Your task to perform on an android device: check battery use Image 0: 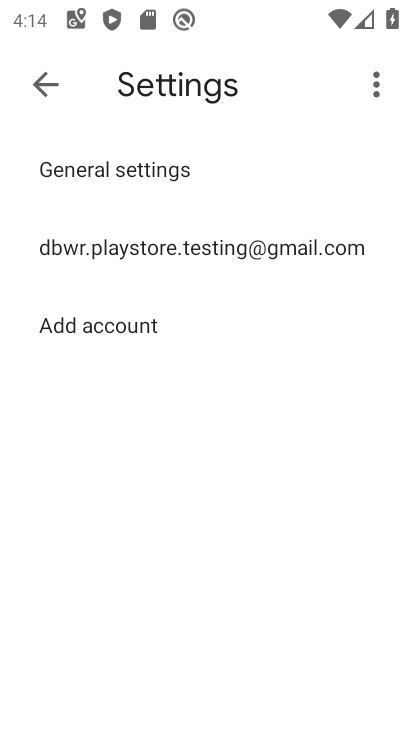
Step 0: press home button
Your task to perform on an android device: check battery use Image 1: 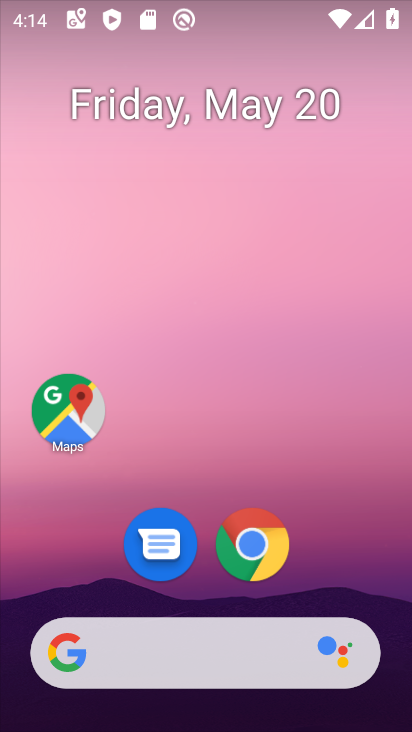
Step 1: drag from (326, 604) to (379, 30)
Your task to perform on an android device: check battery use Image 2: 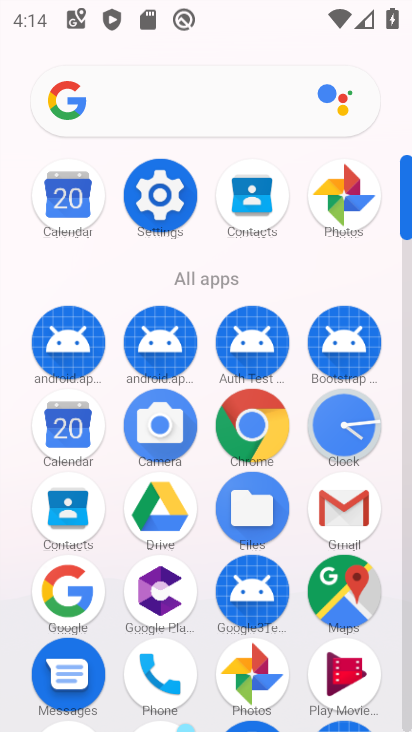
Step 2: click (159, 203)
Your task to perform on an android device: check battery use Image 3: 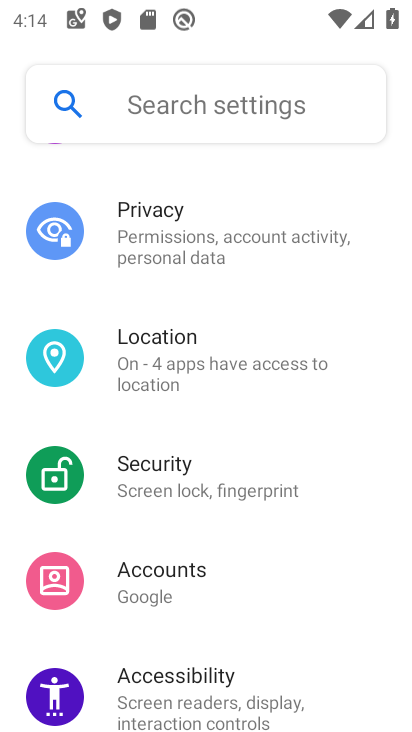
Step 3: drag from (275, 299) to (283, 554)
Your task to perform on an android device: check battery use Image 4: 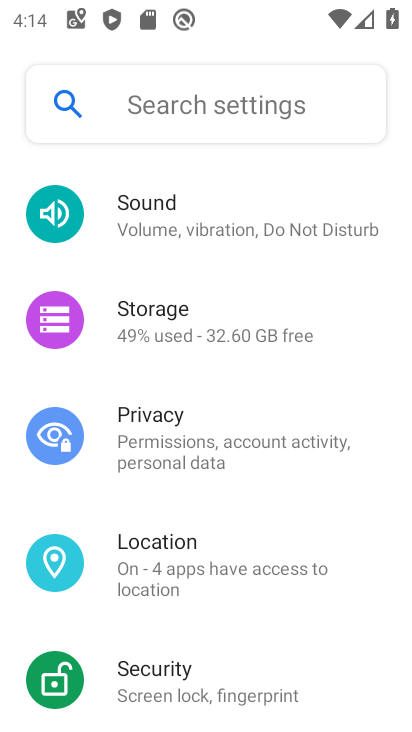
Step 4: drag from (234, 280) to (242, 599)
Your task to perform on an android device: check battery use Image 5: 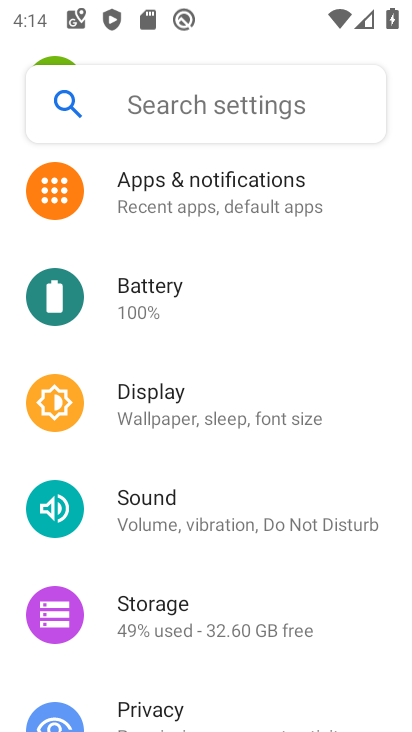
Step 5: click (133, 309)
Your task to perform on an android device: check battery use Image 6: 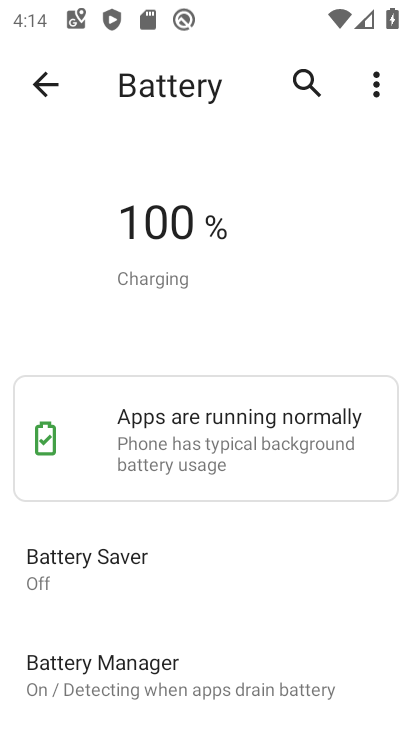
Step 6: click (379, 86)
Your task to perform on an android device: check battery use Image 7: 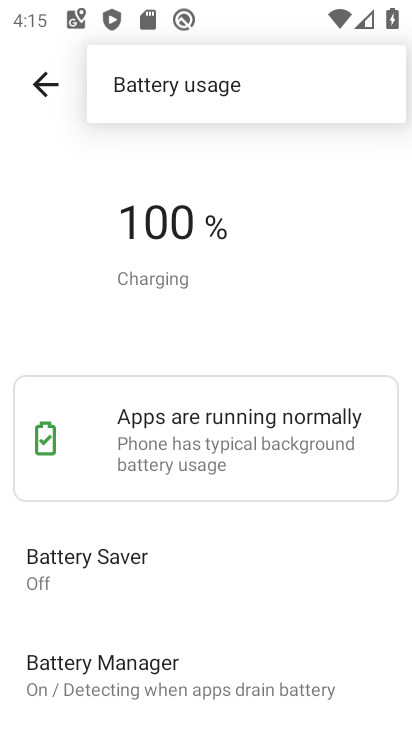
Step 7: click (201, 92)
Your task to perform on an android device: check battery use Image 8: 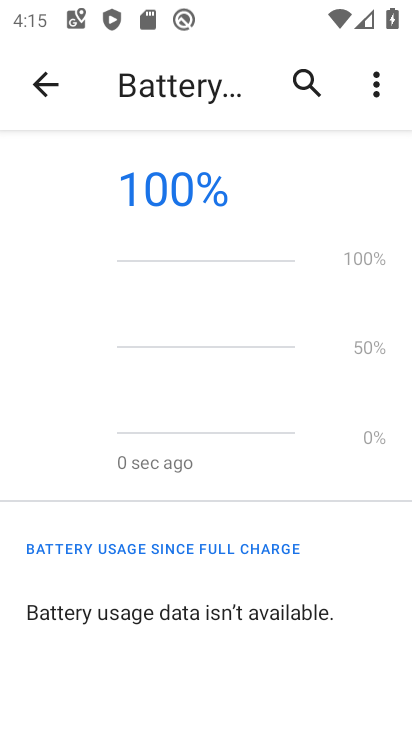
Step 8: task complete